Your task to perform on an android device: toggle notifications settings in the gmail app Image 0: 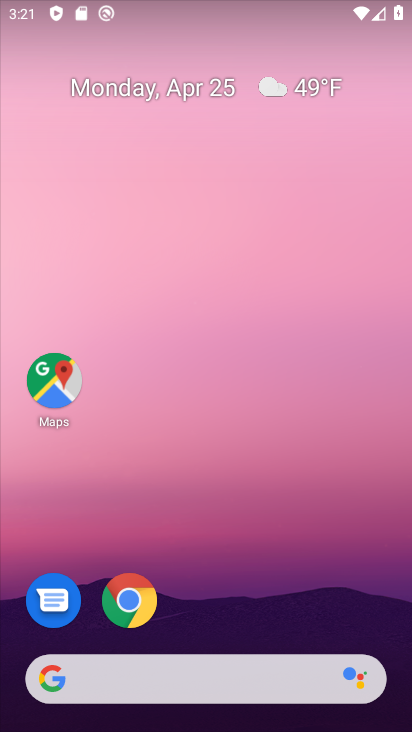
Step 0: drag from (275, 572) to (224, 3)
Your task to perform on an android device: toggle notifications settings in the gmail app Image 1: 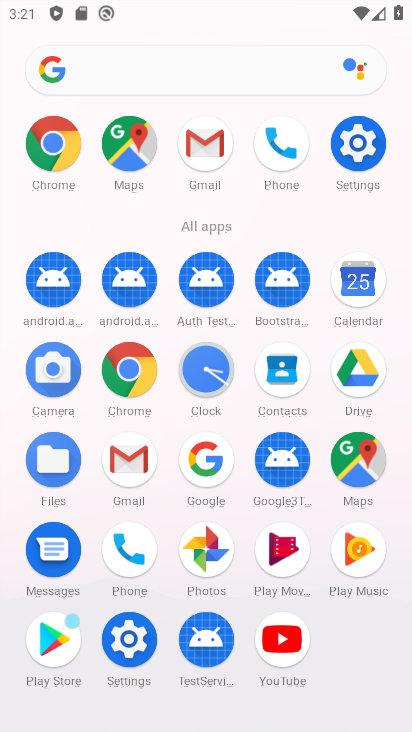
Step 1: click (209, 126)
Your task to perform on an android device: toggle notifications settings in the gmail app Image 2: 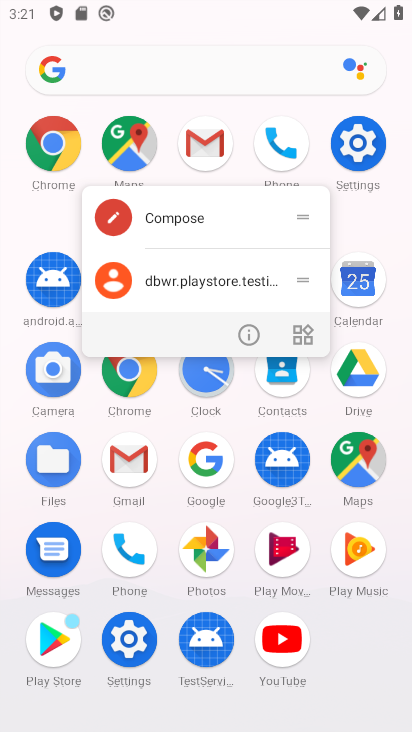
Step 2: click (199, 140)
Your task to perform on an android device: toggle notifications settings in the gmail app Image 3: 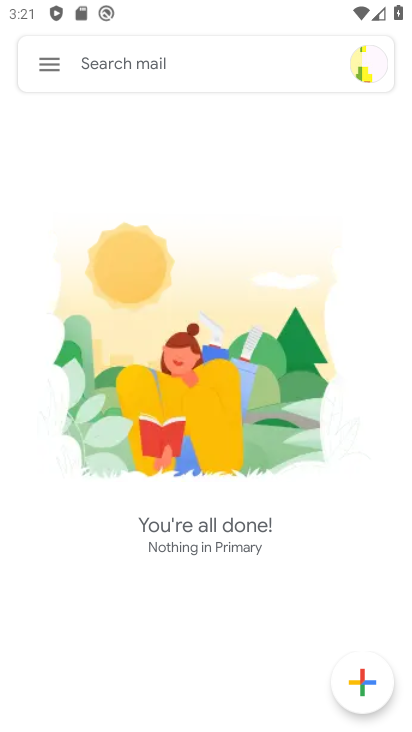
Step 3: click (47, 59)
Your task to perform on an android device: toggle notifications settings in the gmail app Image 4: 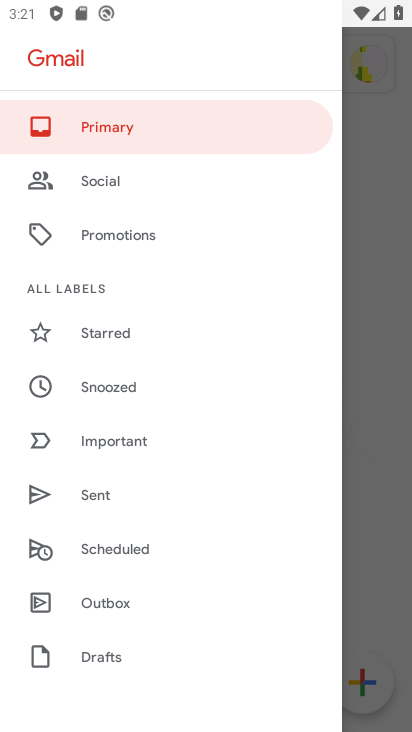
Step 4: drag from (173, 596) to (198, 219)
Your task to perform on an android device: toggle notifications settings in the gmail app Image 5: 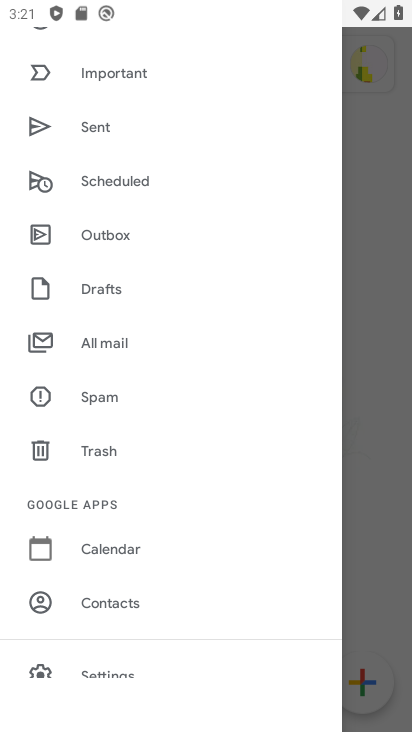
Step 5: drag from (201, 463) to (240, 253)
Your task to perform on an android device: toggle notifications settings in the gmail app Image 6: 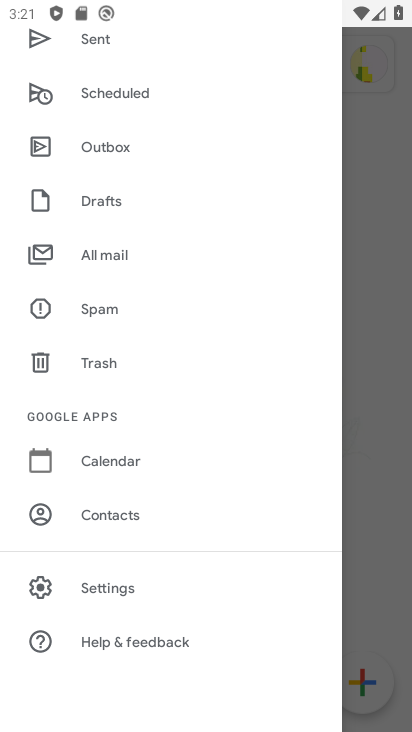
Step 6: click (120, 582)
Your task to perform on an android device: toggle notifications settings in the gmail app Image 7: 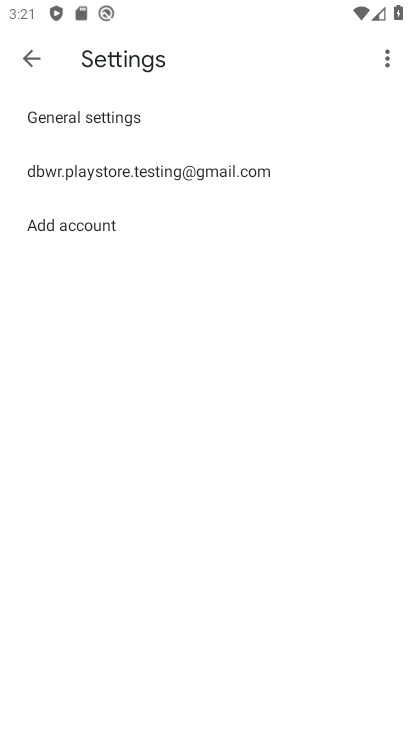
Step 7: click (129, 109)
Your task to perform on an android device: toggle notifications settings in the gmail app Image 8: 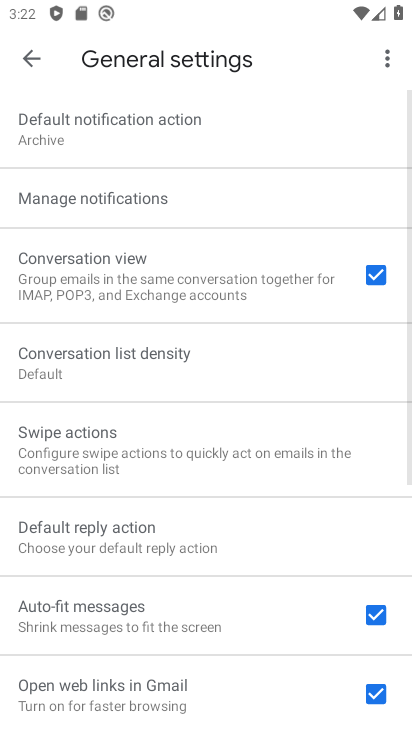
Step 8: click (214, 194)
Your task to perform on an android device: toggle notifications settings in the gmail app Image 9: 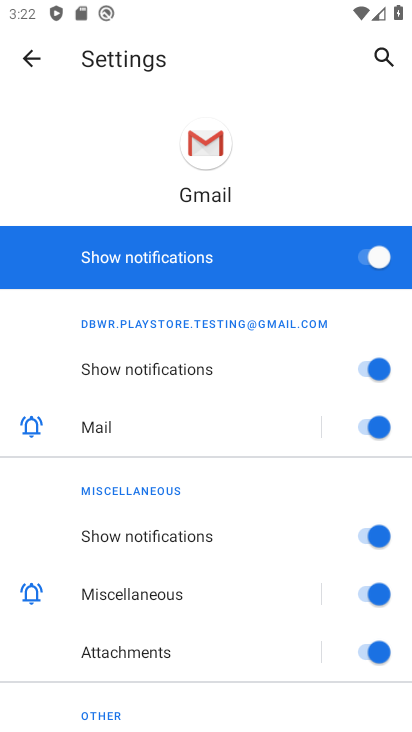
Step 9: click (359, 255)
Your task to perform on an android device: toggle notifications settings in the gmail app Image 10: 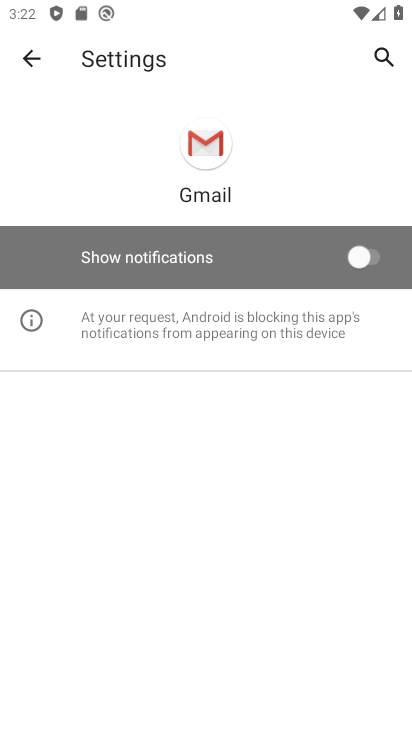
Step 10: task complete